Your task to perform on an android device: Toggle the flashlight Image 0: 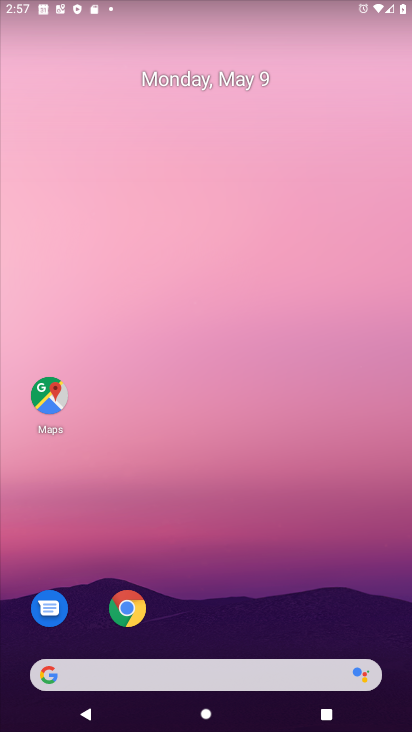
Step 0: drag from (269, 11) to (287, 507)
Your task to perform on an android device: Toggle the flashlight Image 1: 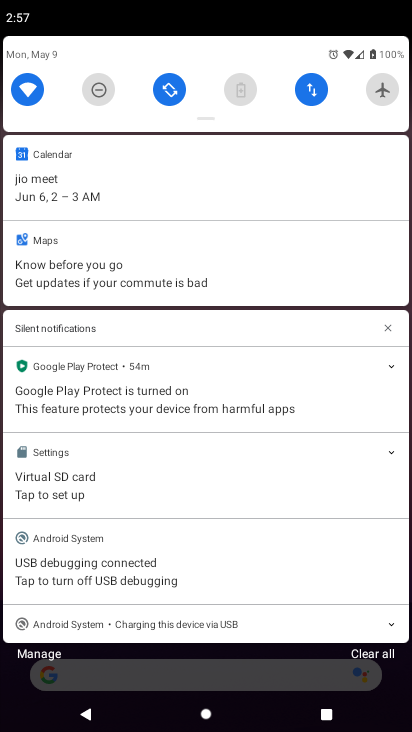
Step 1: drag from (240, 47) to (289, 668)
Your task to perform on an android device: Toggle the flashlight Image 2: 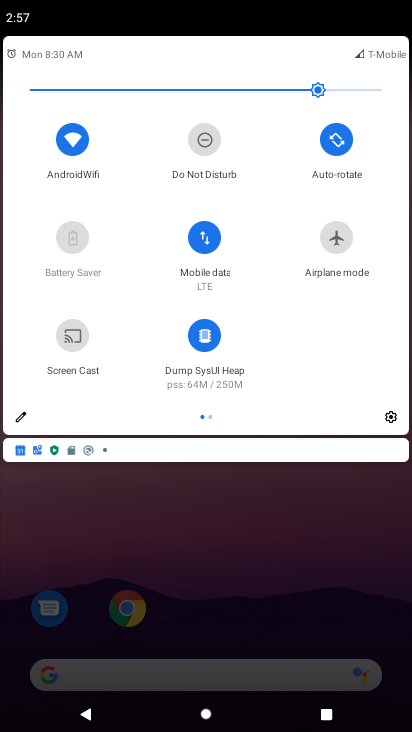
Step 2: click (384, 420)
Your task to perform on an android device: Toggle the flashlight Image 3: 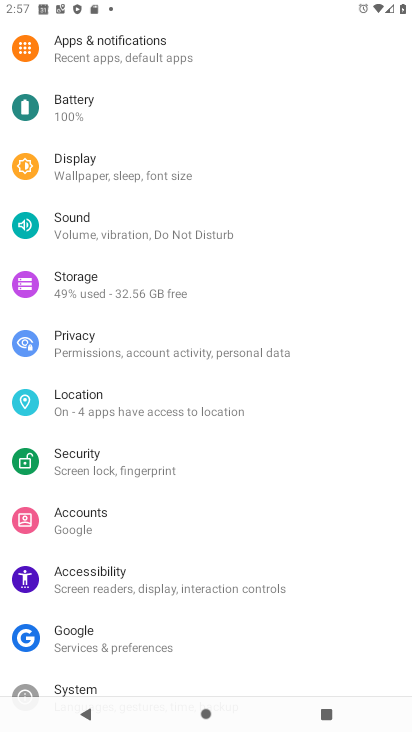
Step 3: task complete